Your task to perform on an android device: open app "Pandora - Music & Podcasts" Image 0: 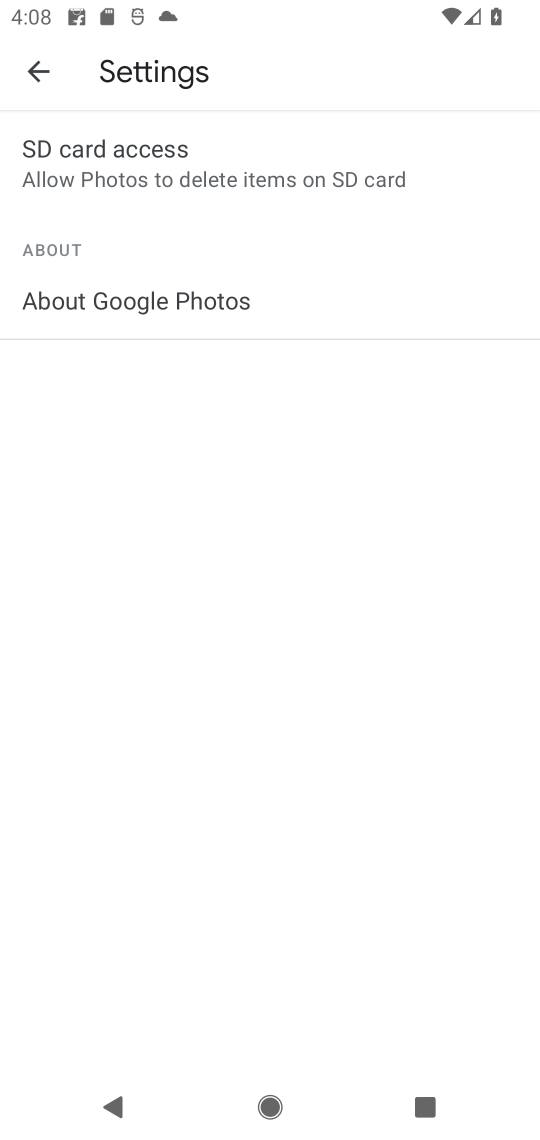
Step 0: press home button
Your task to perform on an android device: open app "Pandora - Music & Podcasts" Image 1: 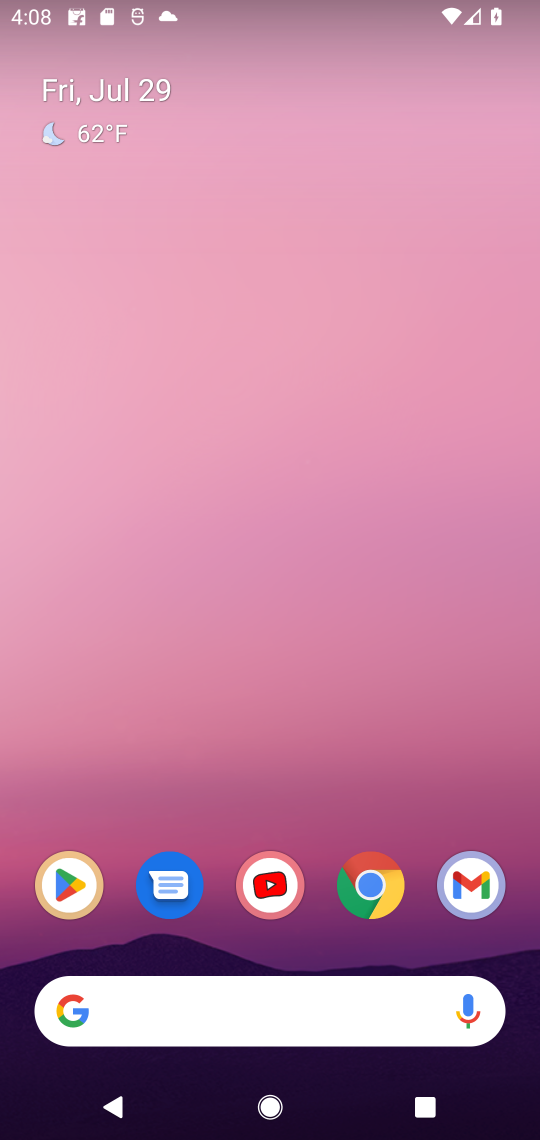
Step 1: click (67, 883)
Your task to perform on an android device: open app "Pandora - Music & Podcasts" Image 2: 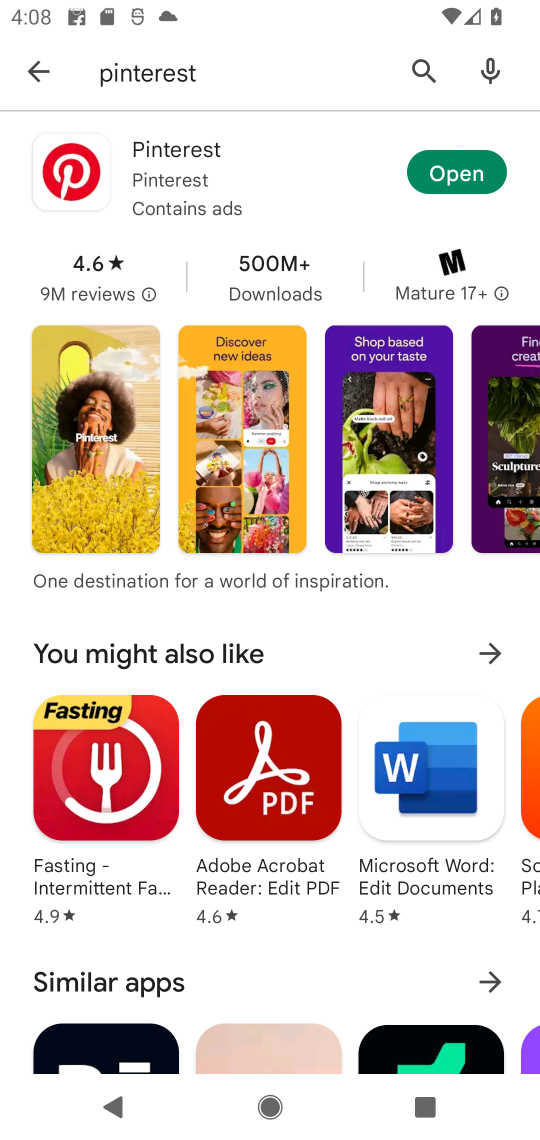
Step 2: click (421, 68)
Your task to perform on an android device: open app "Pandora - Music & Podcasts" Image 3: 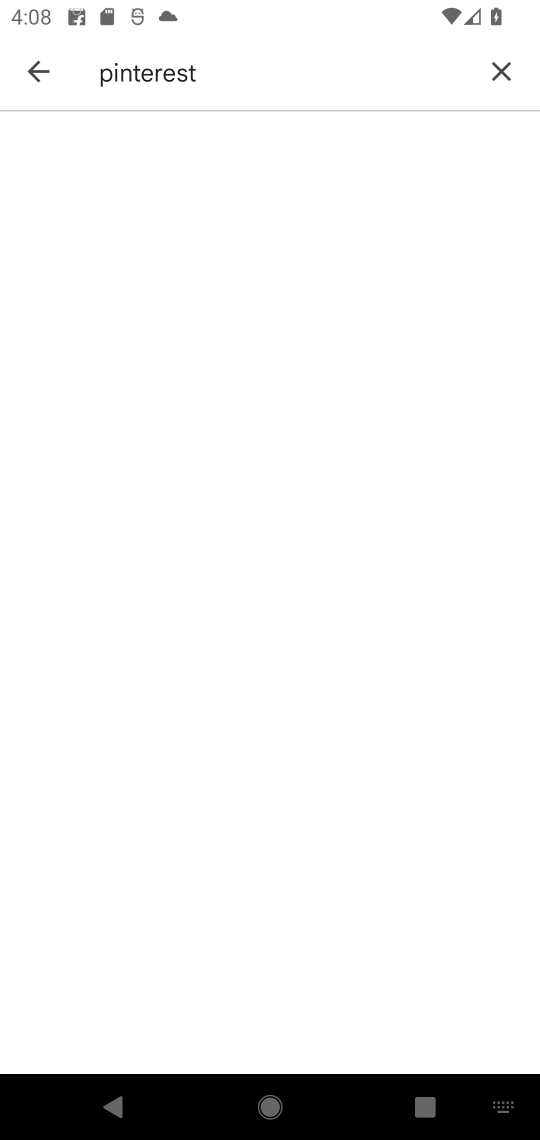
Step 3: click (492, 72)
Your task to perform on an android device: open app "Pandora - Music & Podcasts" Image 4: 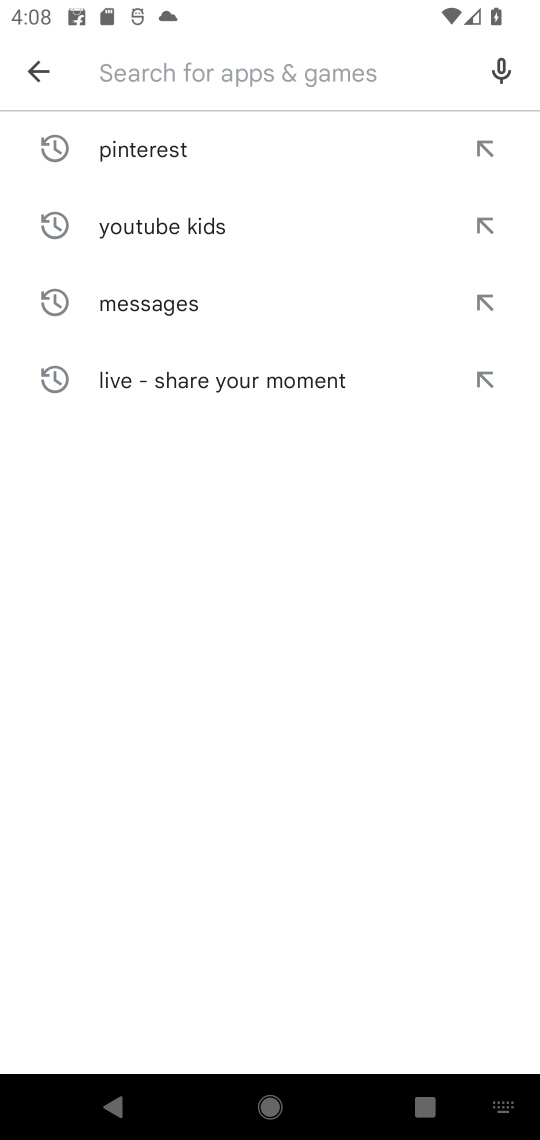
Step 4: type "Pandora - Music & Podcasts"
Your task to perform on an android device: open app "Pandora - Music & Podcasts" Image 5: 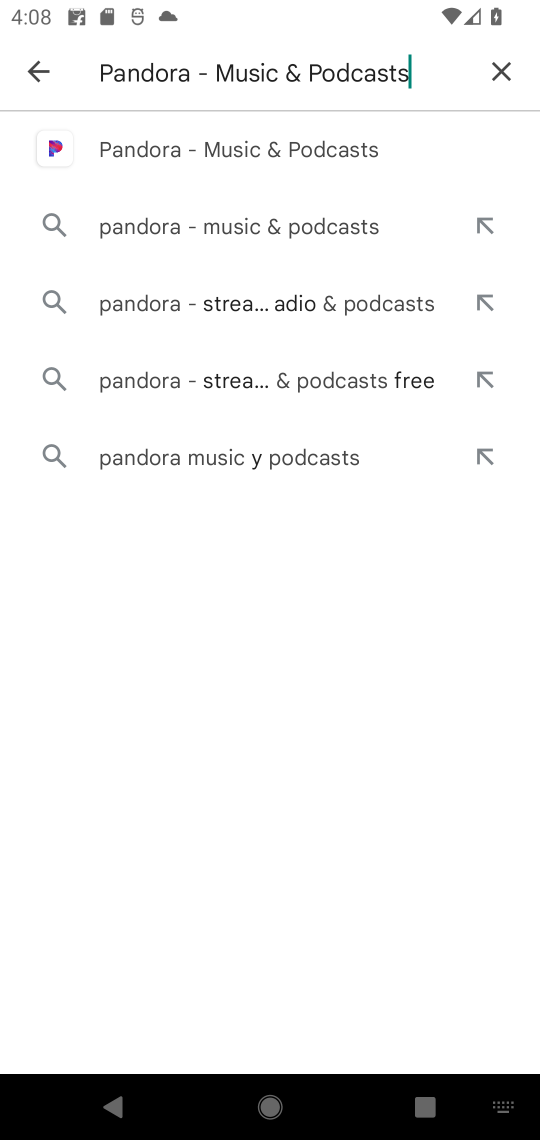
Step 5: click (341, 146)
Your task to perform on an android device: open app "Pandora - Music & Podcasts" Image 6: 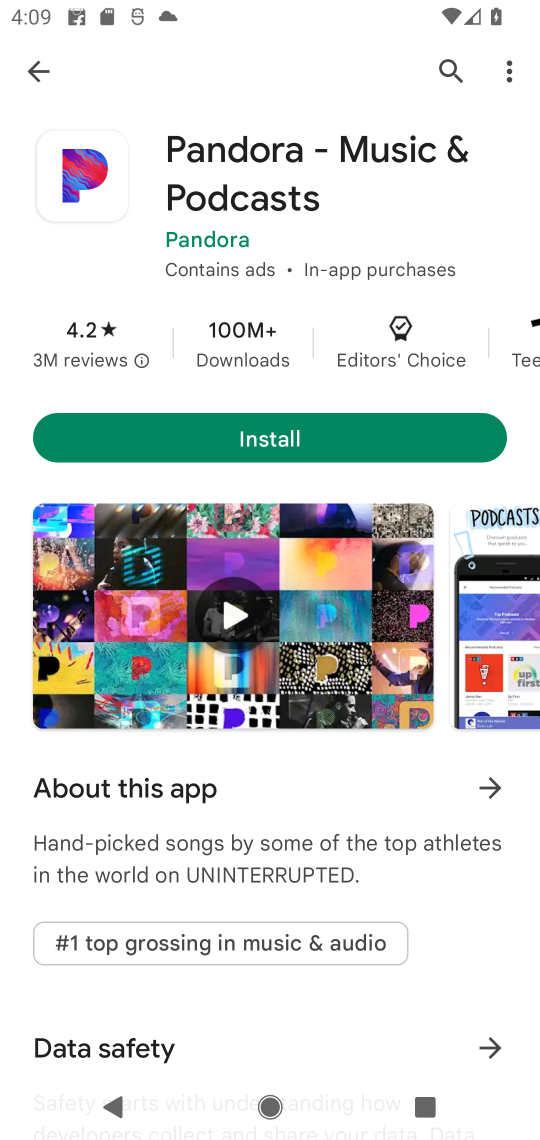
Step 6: click (97, 432)
Your task to perform on an android device: open app "Pandora - Music & Podcasts" Image 7: 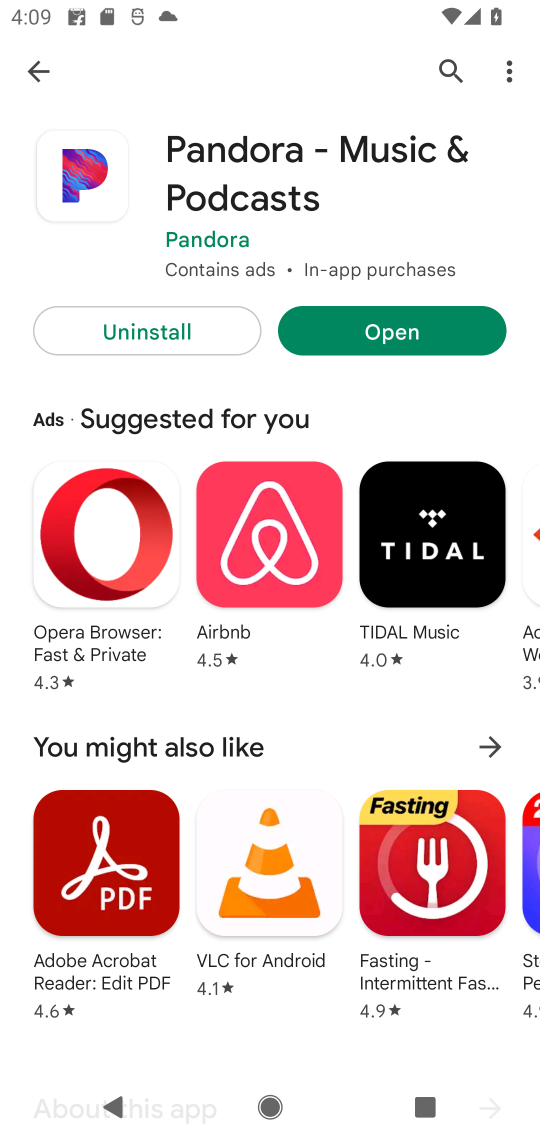
Step 7: click (417, 337)
Your task to perform on an android device: open app "Pandora - Music & Podcasts" Image 8: 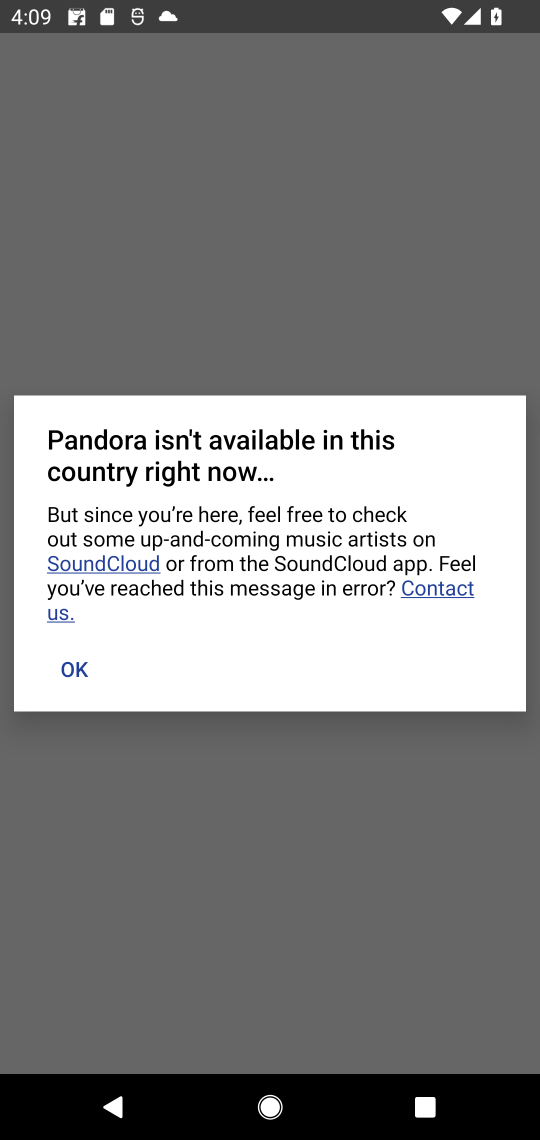
Step 8: task complete